Your task to perform on an android device: Clear the cart on target.com. Add "macbook" to the cart on target.com Image 0: 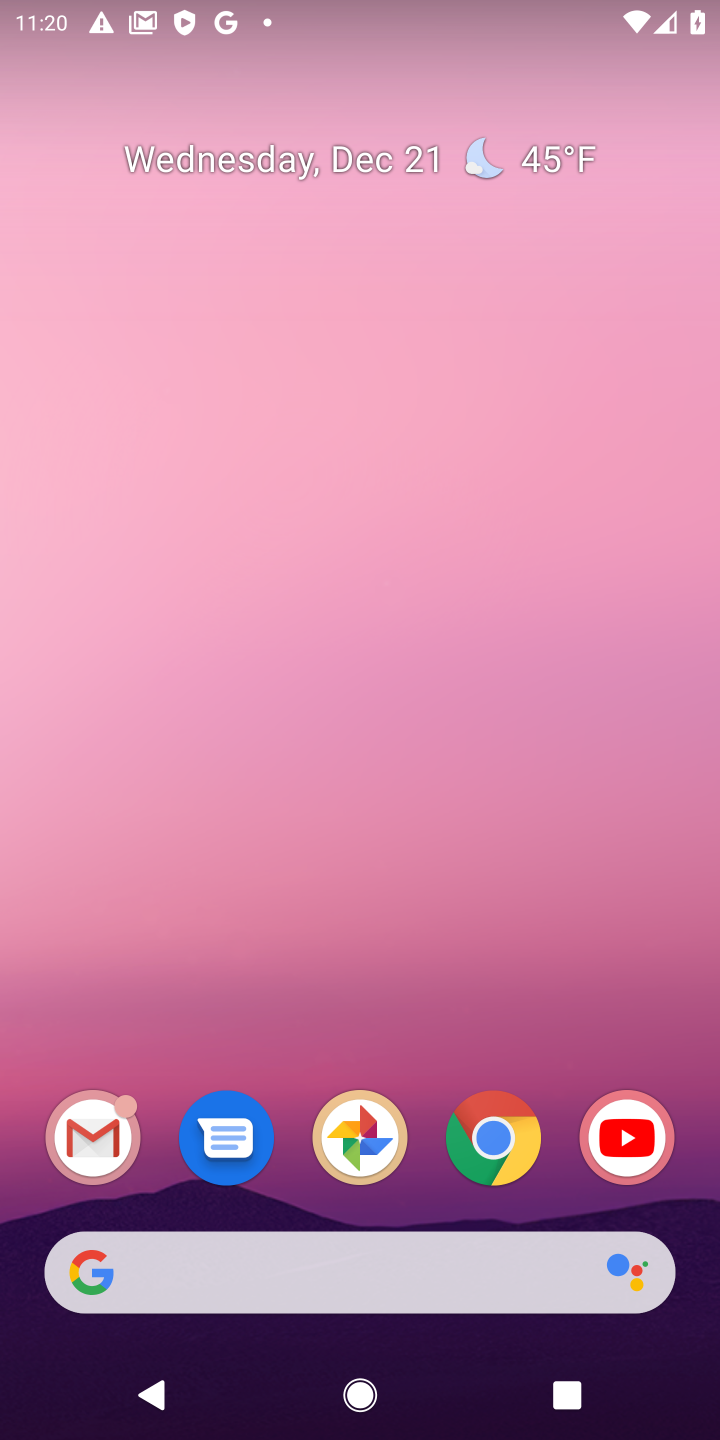
Step 0: click (488, 1153)
Your task to perform on an android device: Clear the cart on target.com. Add "macbook" to the cart on target.com Image 1: 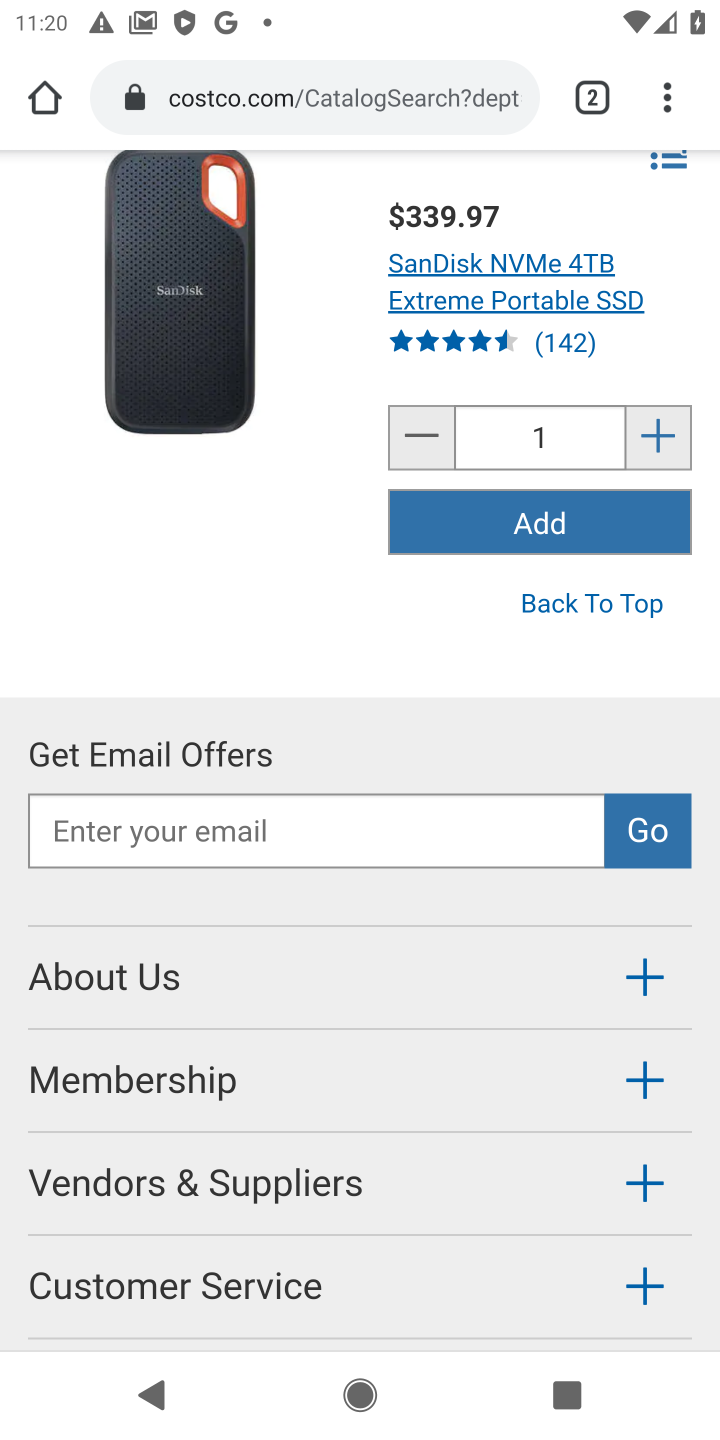
Step 1: click (281, 99)
Your task to perform on an android device: Clear the cart on target.com. Add "macbook" to the cart on target.com Image 2: 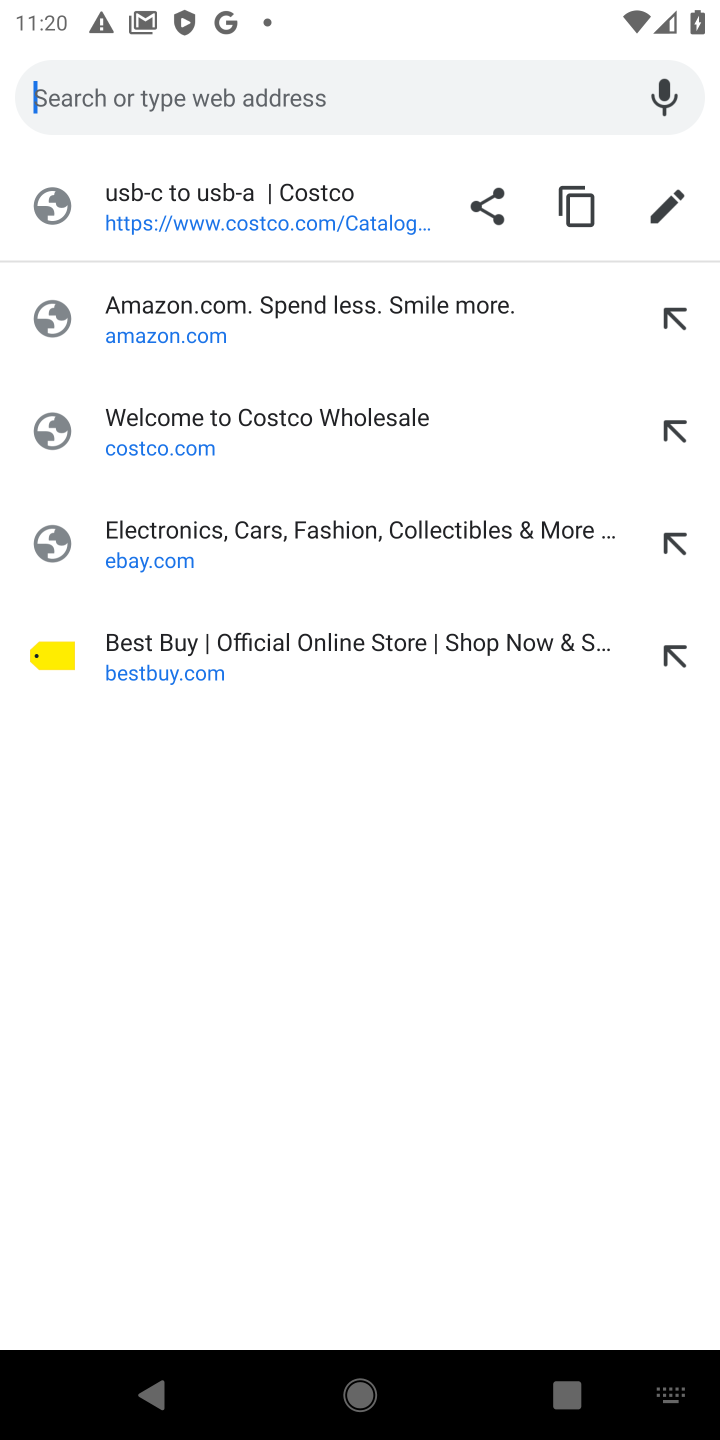
Step 2: type "target.com"
Your task to perform on an android device: Clear the cart on target.com. Add "macbook" to the cart on target.com Image 3: 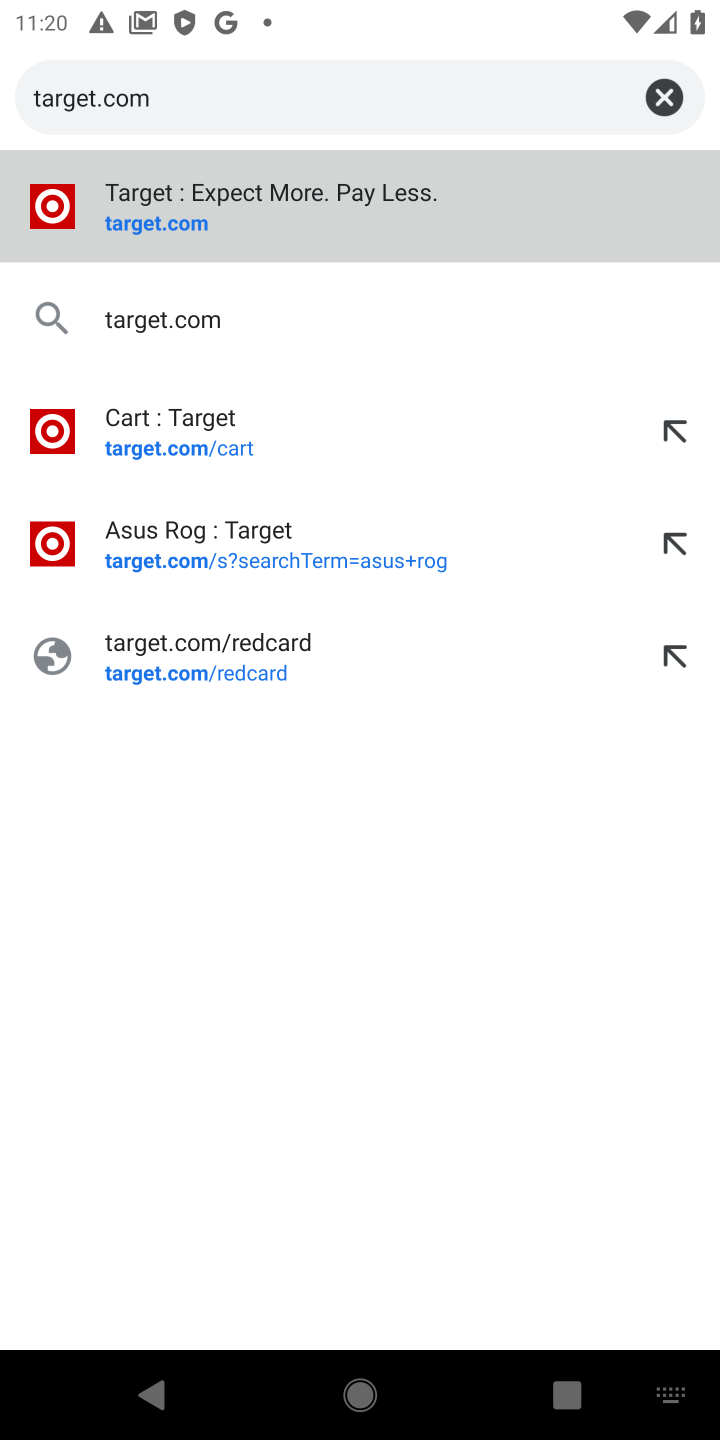
Step 3: click (133, 214)
Your task to perform on an android device: Clear the cart on target.com. Add "macbook" to the cart on target.com Image 4: 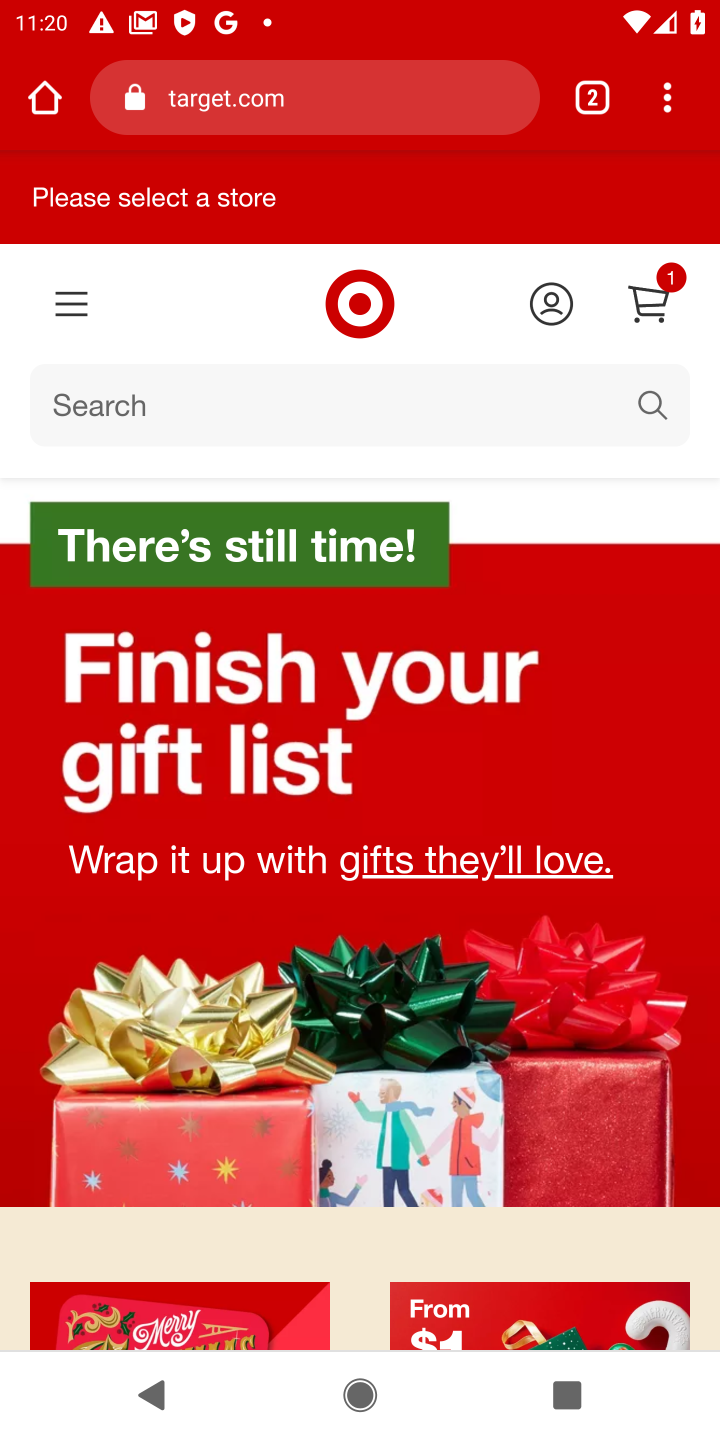
Step 4: click (656, 299)
Your task to perform on an android device: Clear the cart on target.com. Add "macbook" to the cart on target.com Image 5: 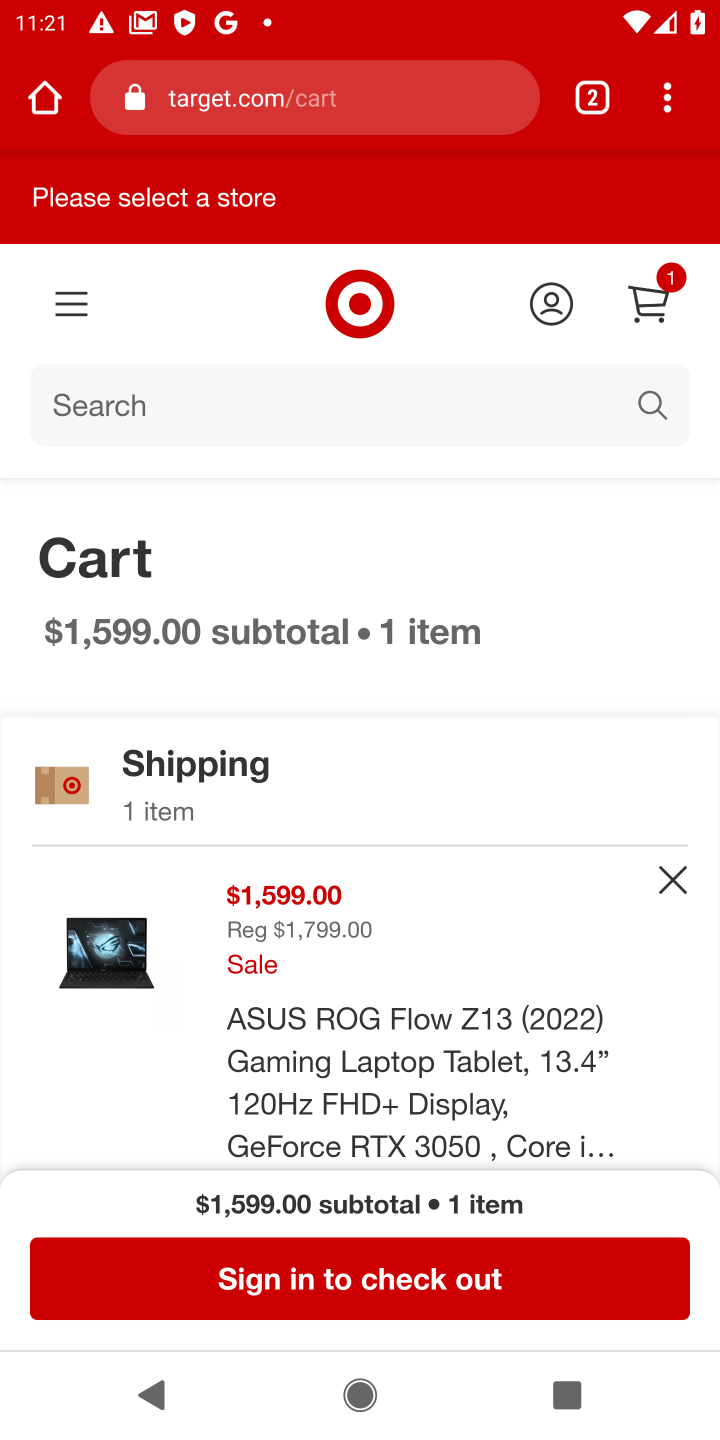
Step 5: click (667, 878)
Your task to perform on an android device: Clear the cart on target.com. Add "macbook" to the cart on target.com Image 6: 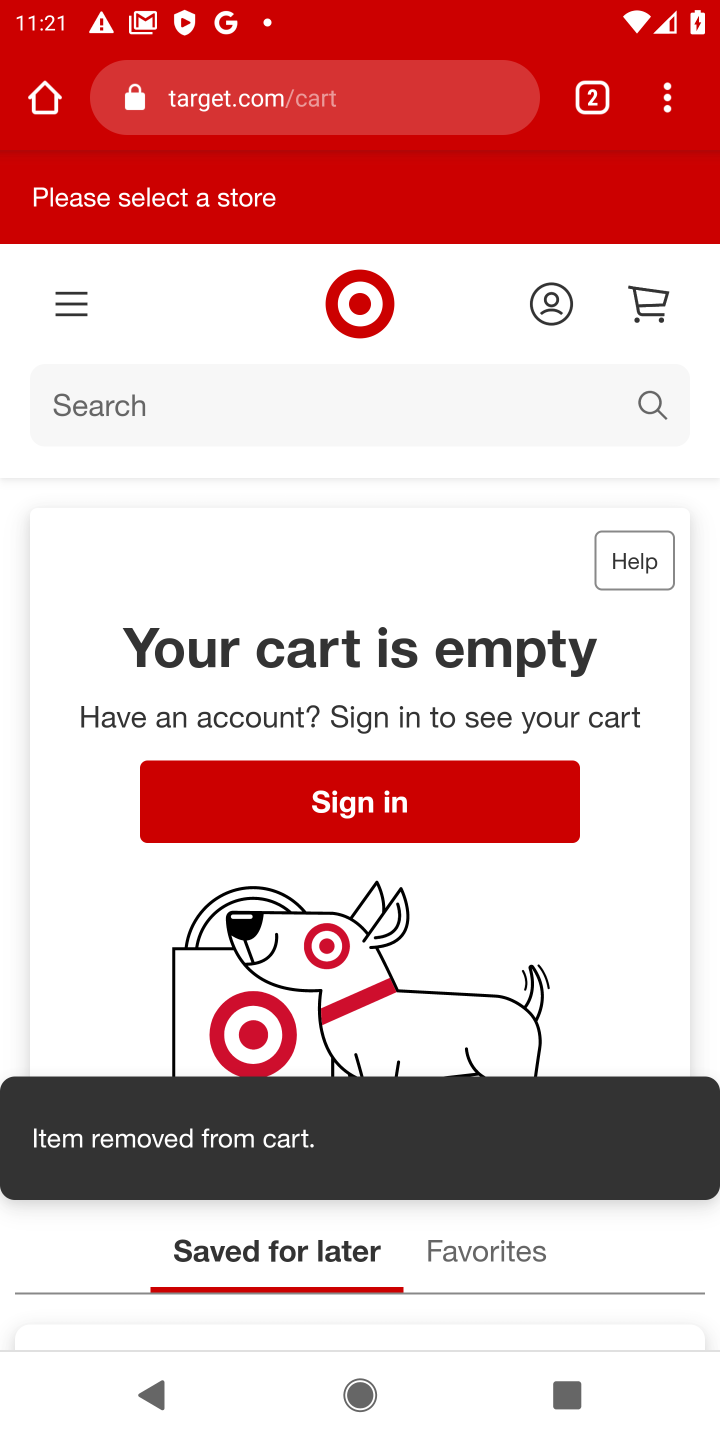
Step 6: click (99, 423)
Your task to perform on an android device: Clear the cart on target.com. Add "macbook" to the cart on target.com Image 7: 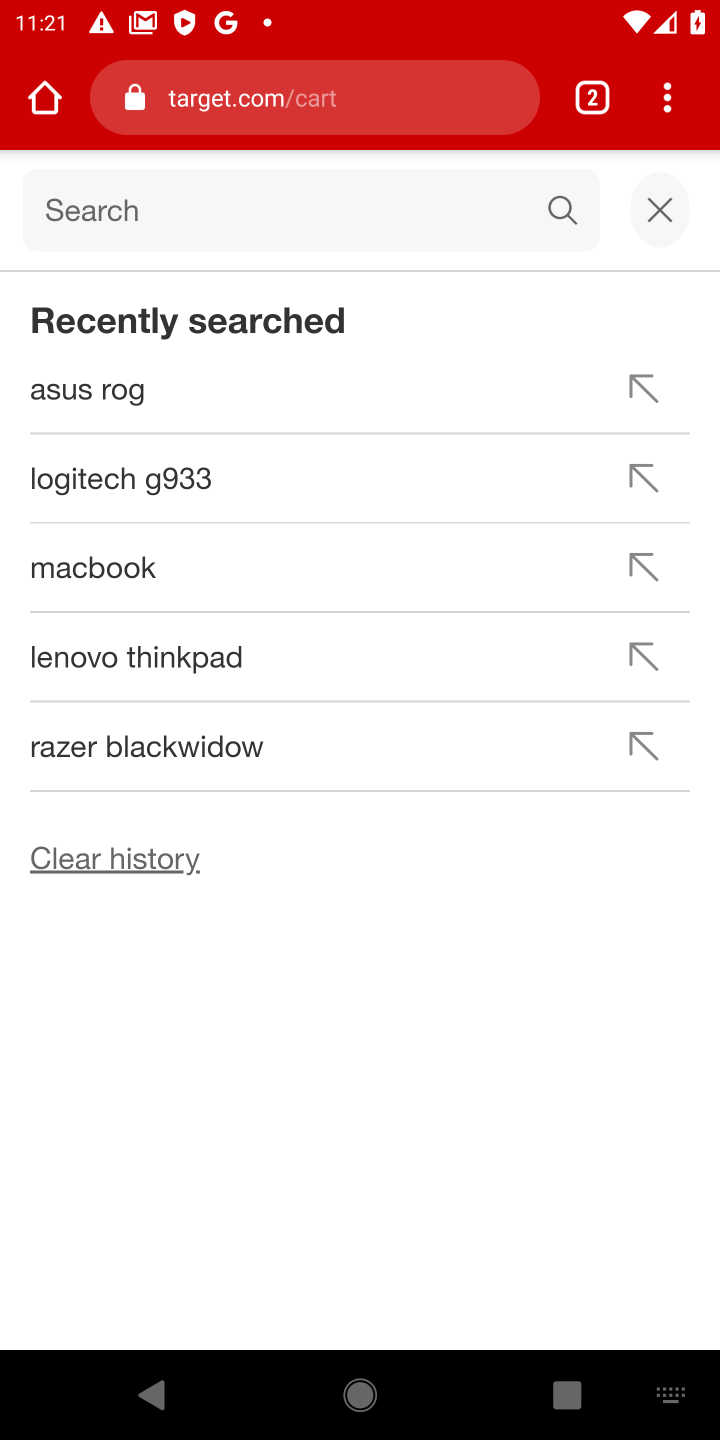
Step 7: type "macbook"
Your task to perform on an android device: Clear the cart on target.com. Add "macbook" to the cart on target.com Image 8: 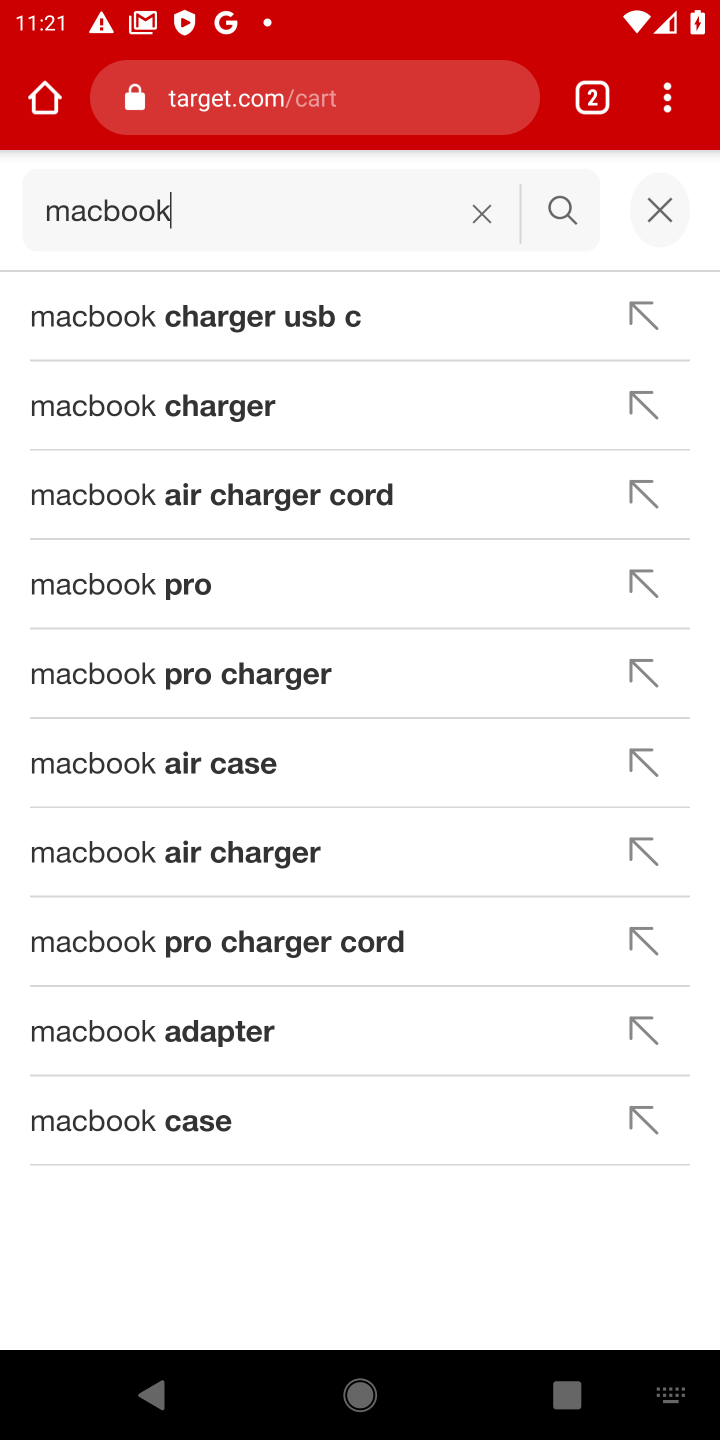
Step 8: click (579, 218)
Your task to perform on an android device: Clear the cart on target.com. Add "macbook" to the cart on target.com Image 9: 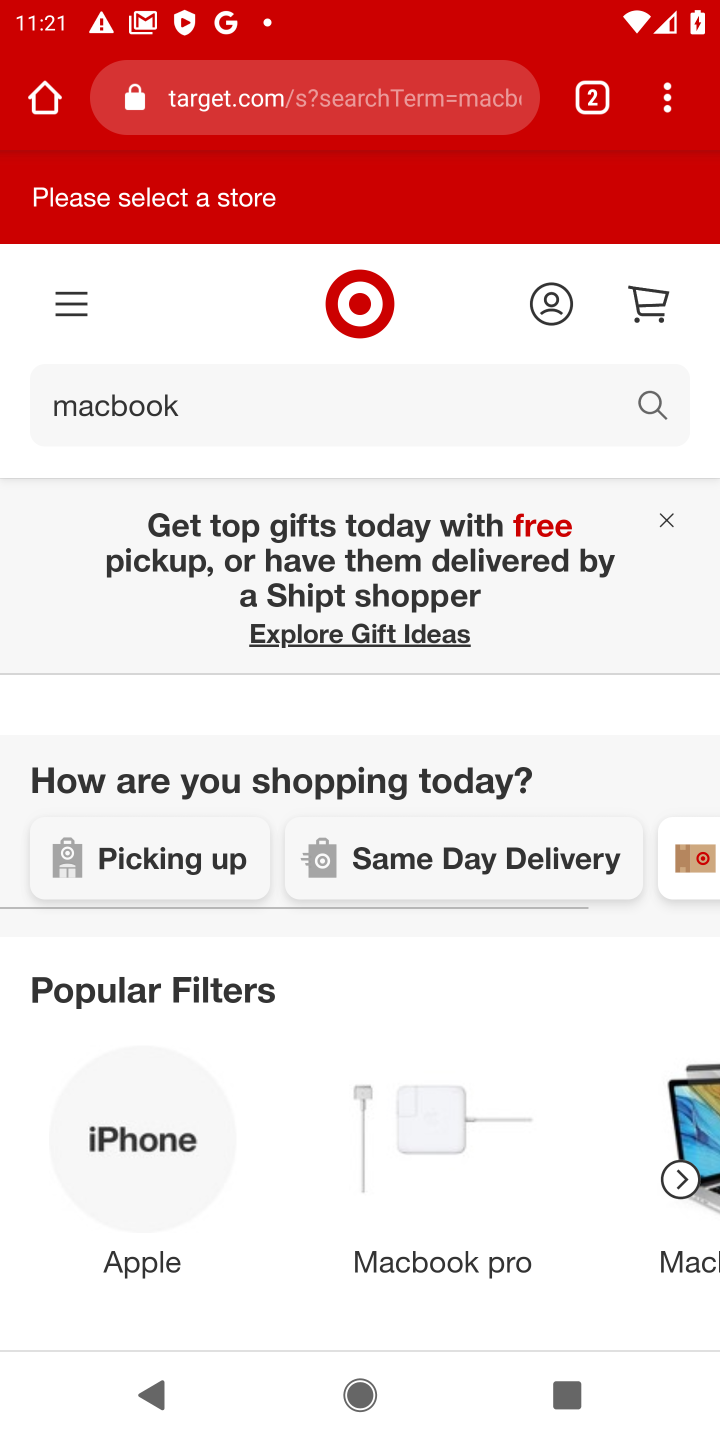
Step 9: drag from (277, 939) to (323, 437)
Your task to perform on an android device: Clear the cart on target.com. Add "macbook" to the cart on target.com Image 10: 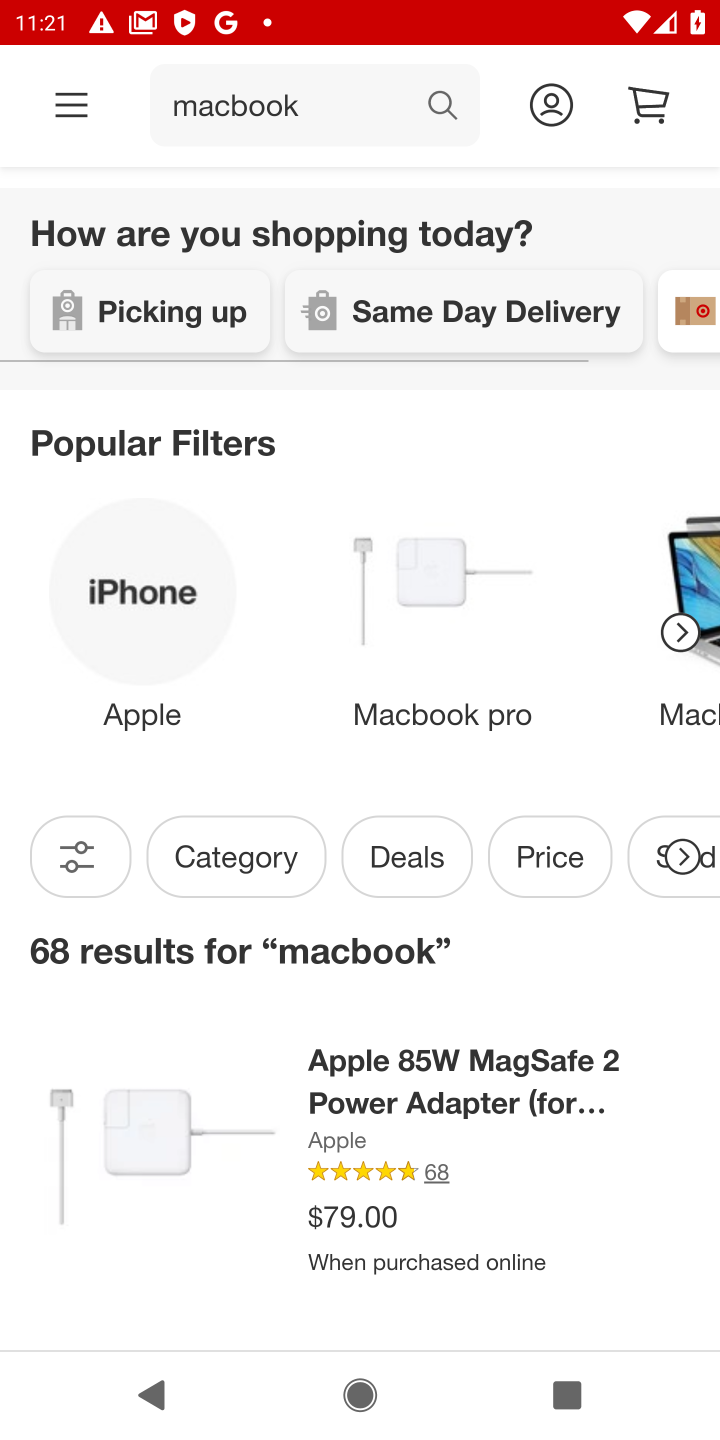
Step 10: drag from (317, 730) to (330, 462)
Your task to perform on an android device: Clear the cart on target.com. Add "macbook" to the cart on target.com Image 11: 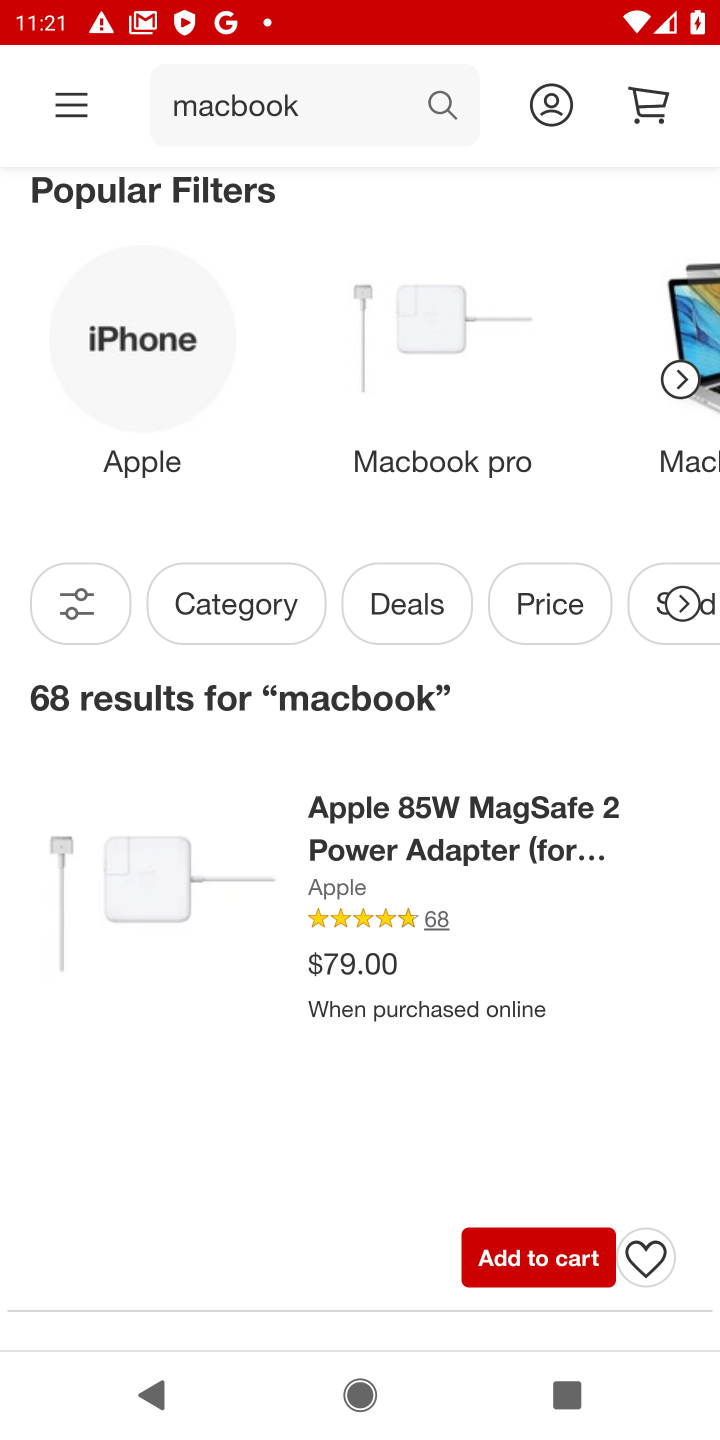
Step 11: click (514, 1254)
Your task to perform on an android device: Clear the cart on target.com. Add "macbook" to the cart on target.com Image 12: 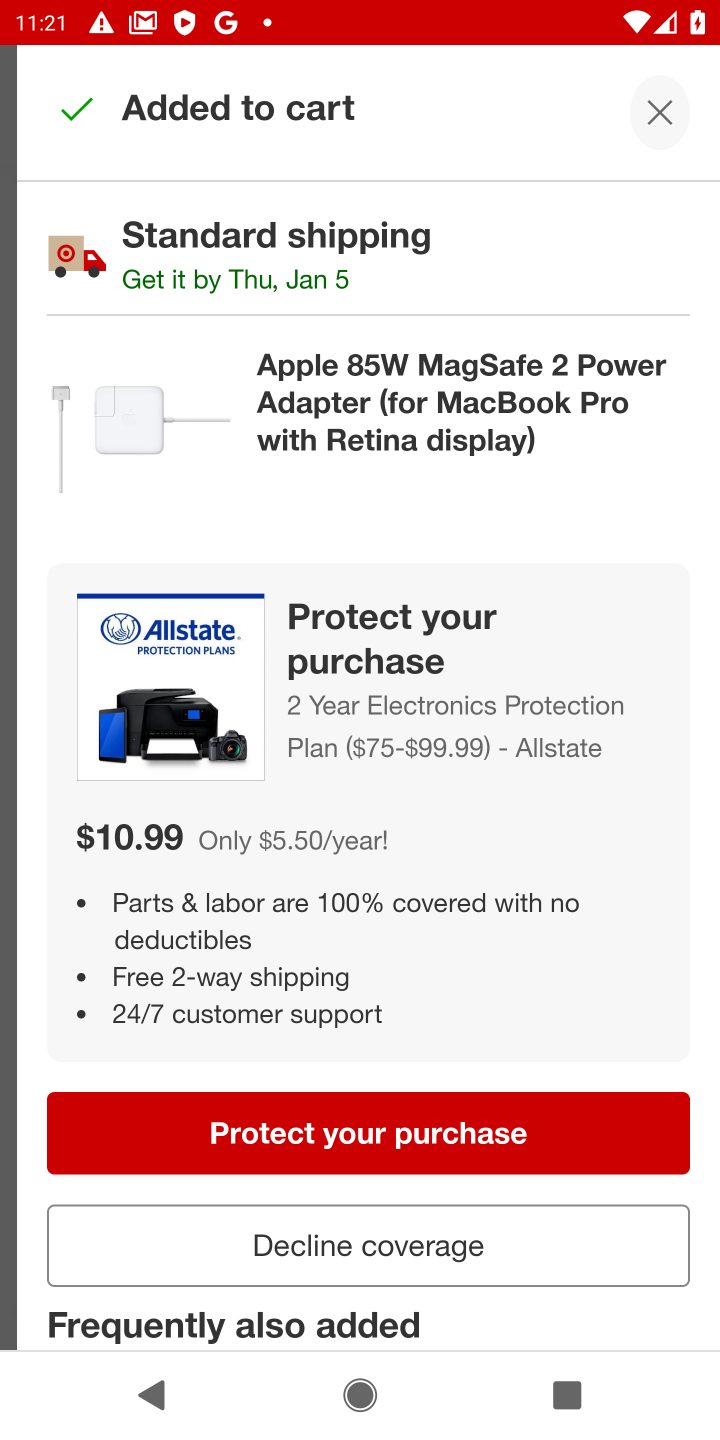
Step 12: task complete